Your task to perform on an android device: uninstall "Grab" Image 0: 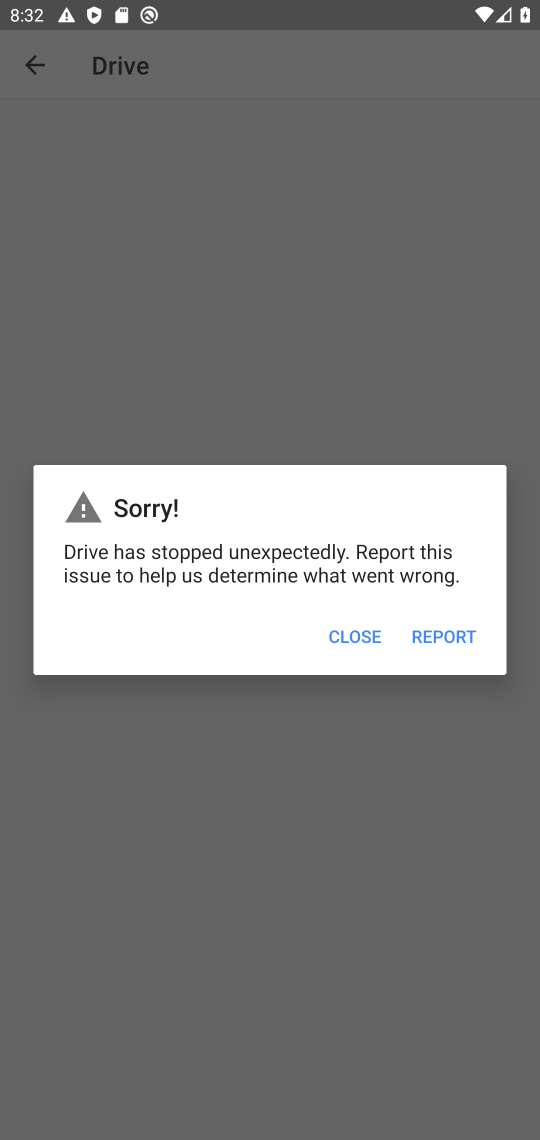
Step 0: press home button
Your task to perform on an android device: uninstall "Grab" Image 1: 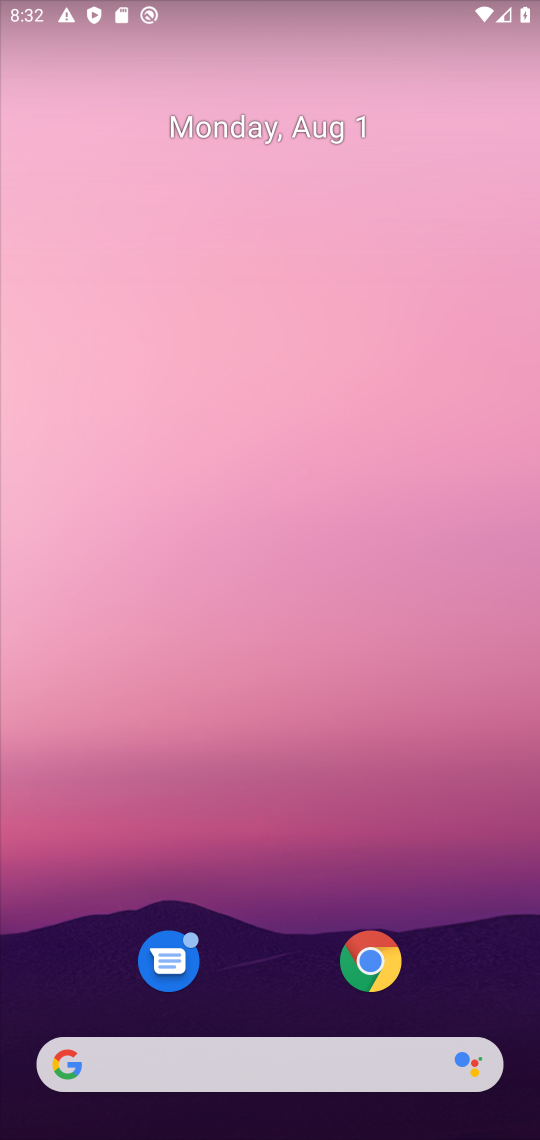
Step 1: drag from (443, 872) to (315, 10)
Your task to perform on an android device: uninstall "Grab" Image 2: 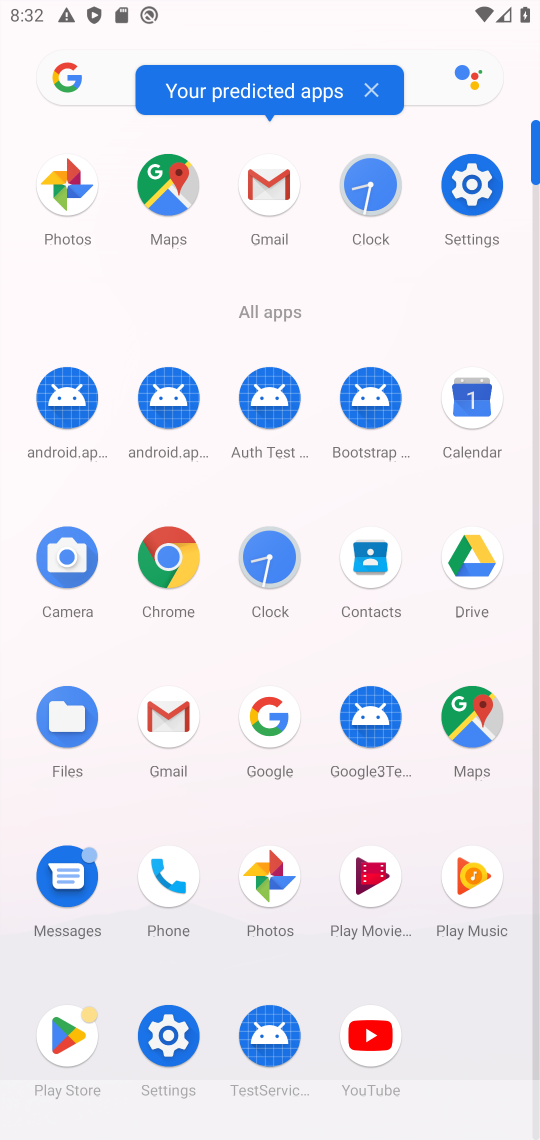
Step 2: click (83, 1036)
Your task to perform on an android device: uninstall "Grab" Image 3: 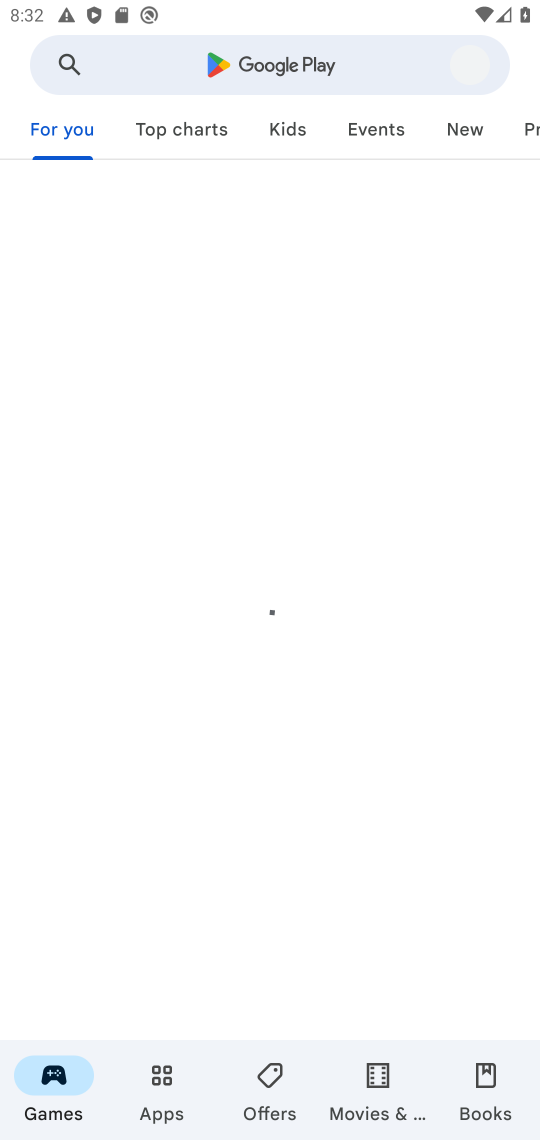
Step 3: click (206, 72)
Your task to perform on an android device: uninstall "Grab" Image 4: 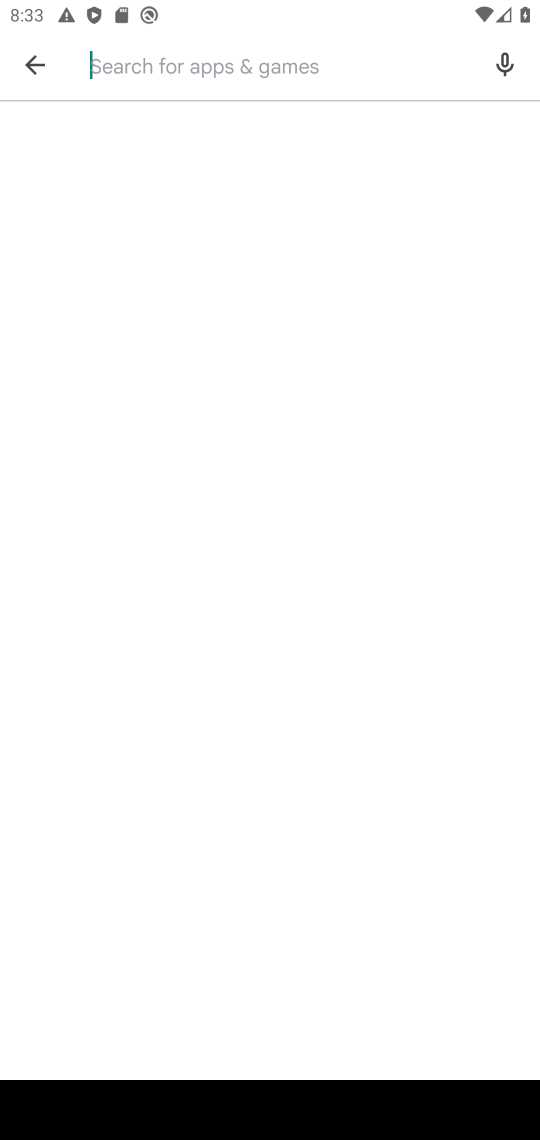
Step 4: type "Grab"
Your task to perform on an android device: uninstall "Grab" Image 5: 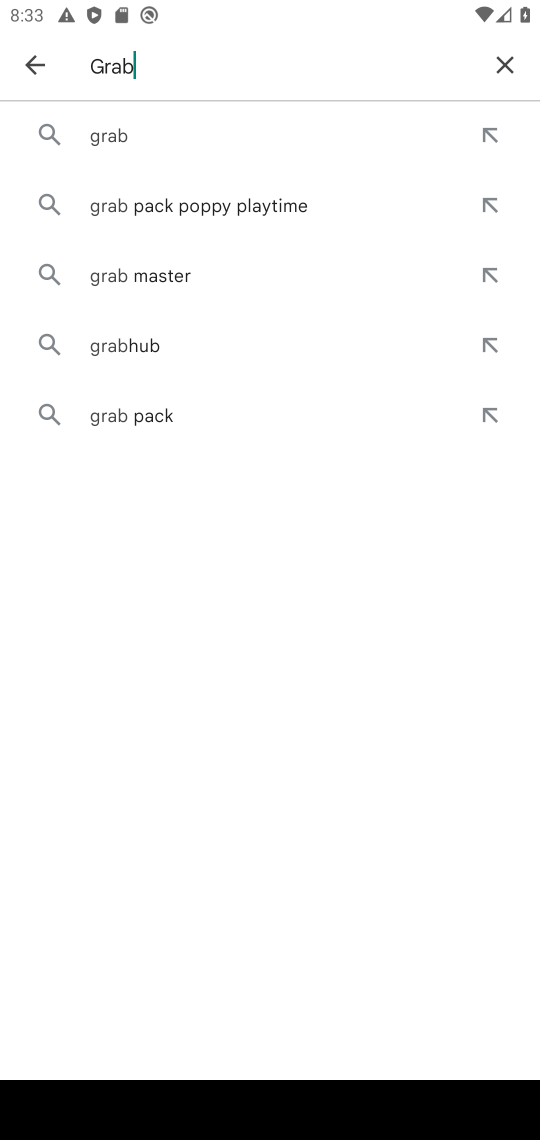
Step 5: click (121, 144)
Your task to perform on an android device: uninstall "Grab" Image 6: 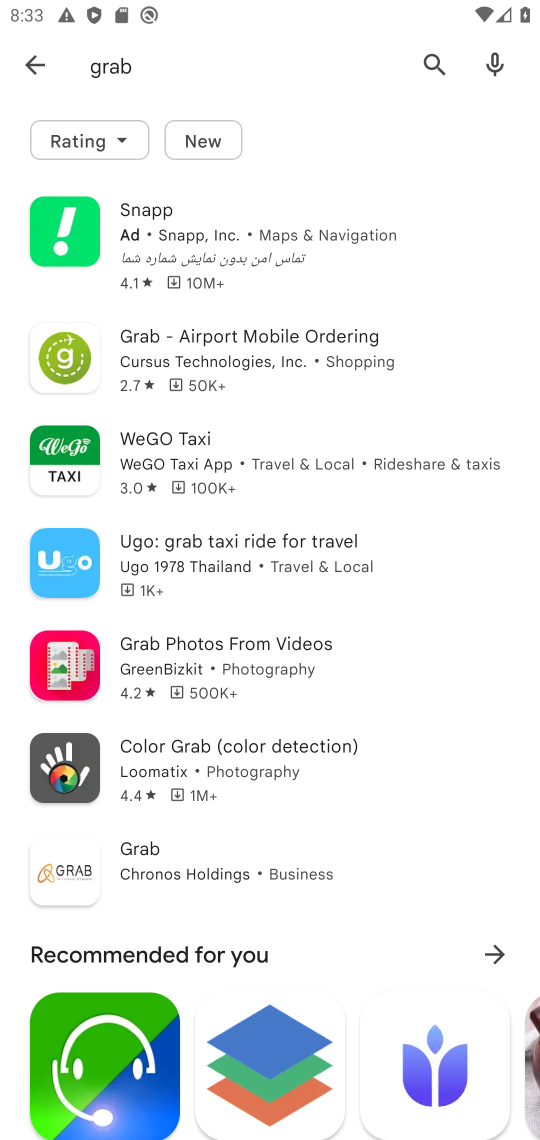
Step 6: task complete